Your task to perform on an android device: Show me recent news Image 0: 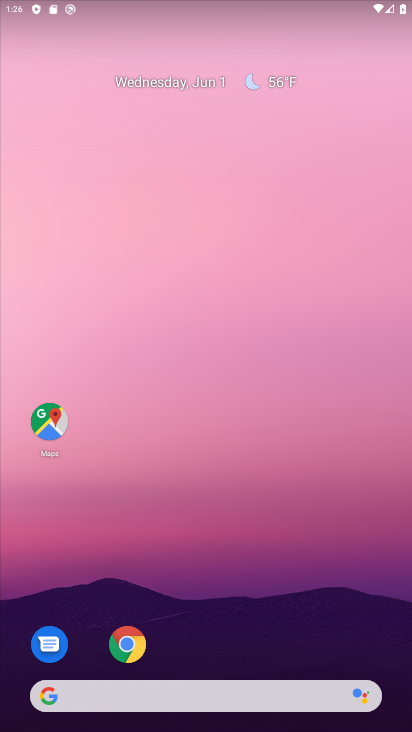
Step 0: drag from (182, 684) to (217, 323)
Your task to perform on an android device: Show me recent news Image 1: 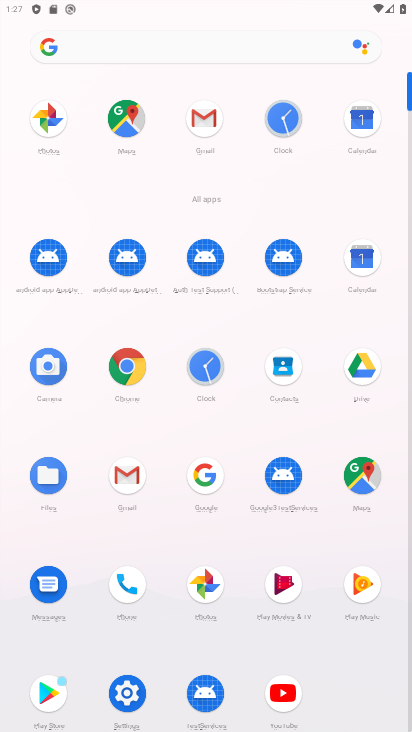
Step 1: click (205, 477)
Your task to perform on an android device: Show me recent news Image 2: 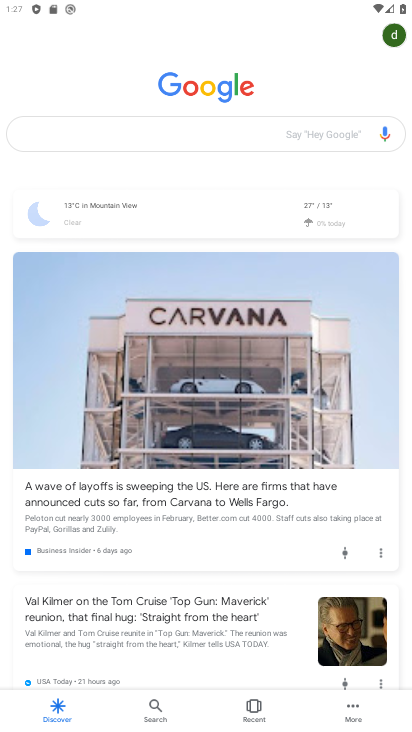
Step 2: click (189, 140)
Your task to perform on an android device: Show me recent news Image 3: 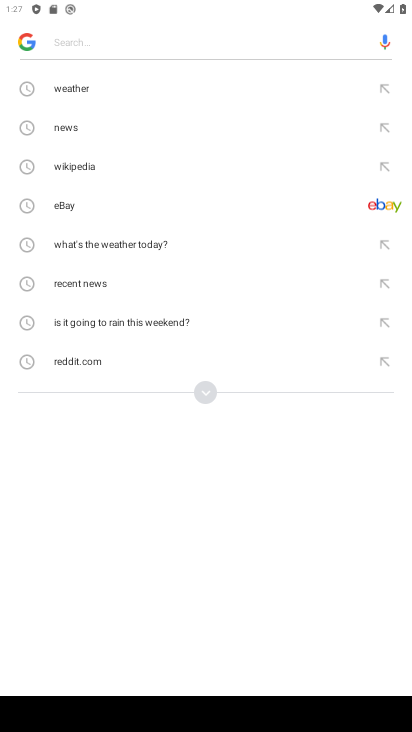
Step 3: drag from (207, 391) to (114, 391)
Your task to perform on an android device: Show me recent news Image 4: 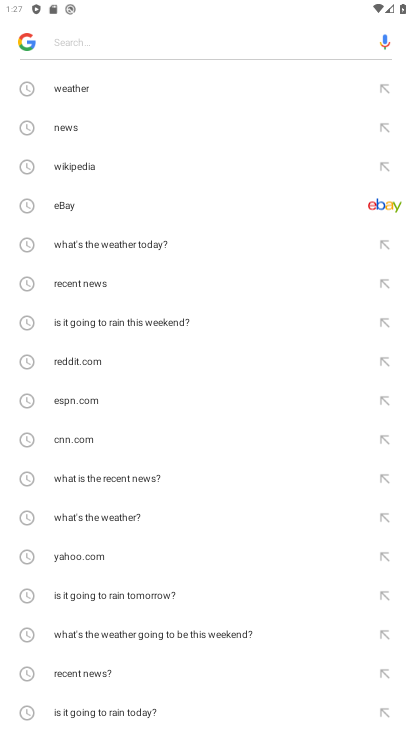
Step 4: click (53, 285)
Your task to perform on an android device: Show me recent news Image 5: 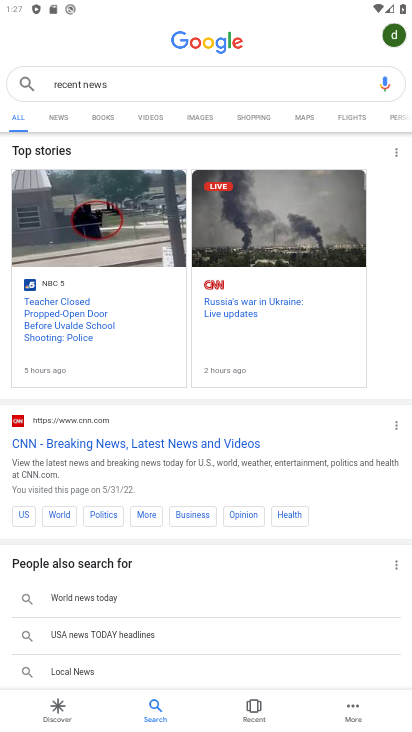
Step 5: task complete